Your task to perform on an android device: check out phone information Image 0: 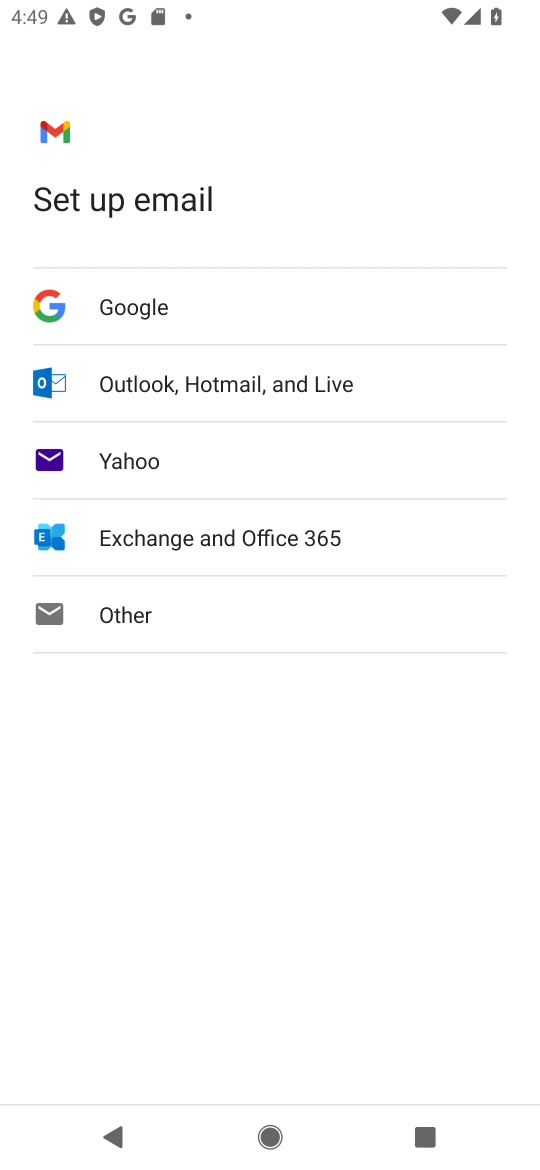
Step 0: press home button
Your task to perform on an android device: check out phone information Image 1: 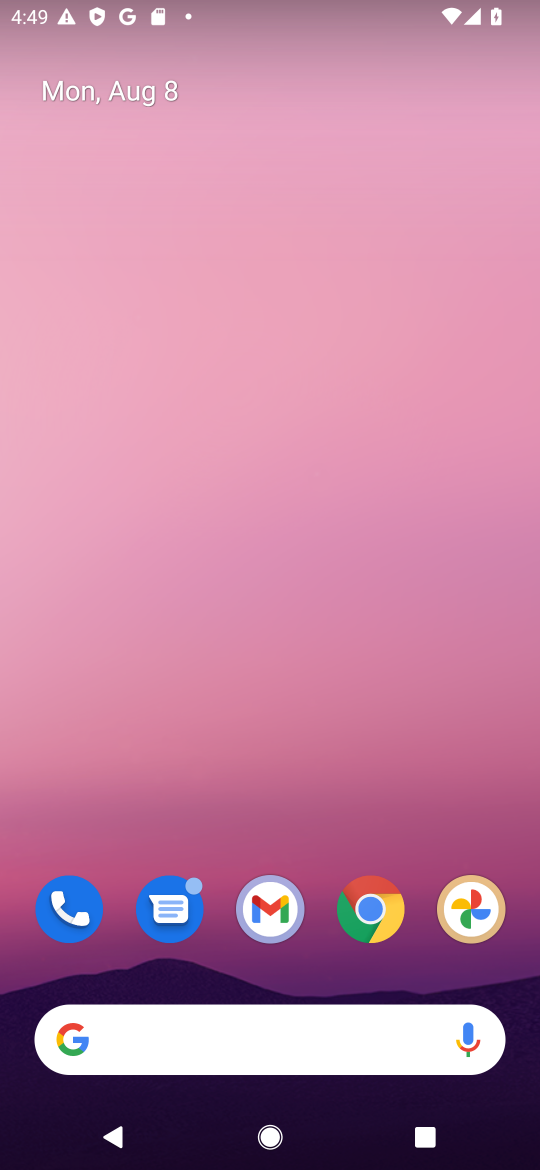
Step 1: drag from (292, 1046) to (323, 197)
Your task to perform on an android device: check out phone information Image 2: 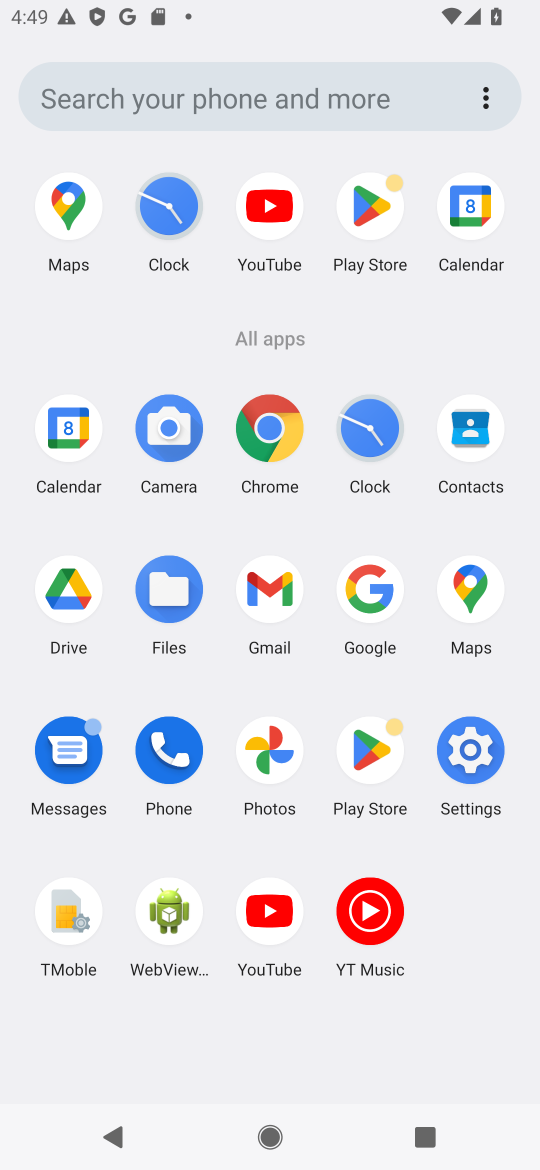
Step 2: click (472, 752)
Your task to perform on an android device: check out phone information Image 3: 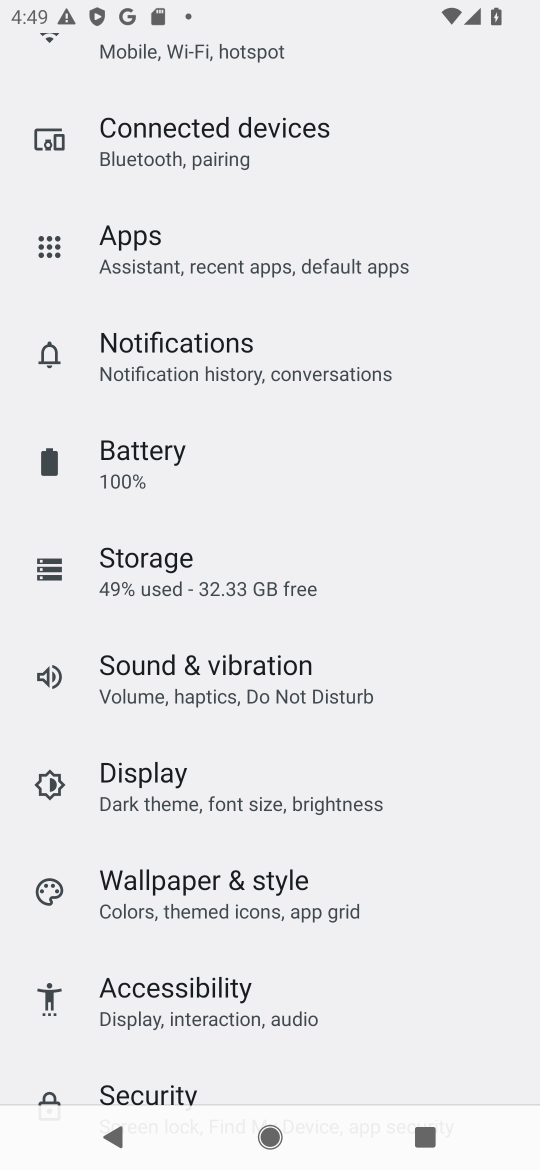
Step 3: drag from (350, 988) to (425, 172)
Your task to perform on an android device: check out phone information Image 4: 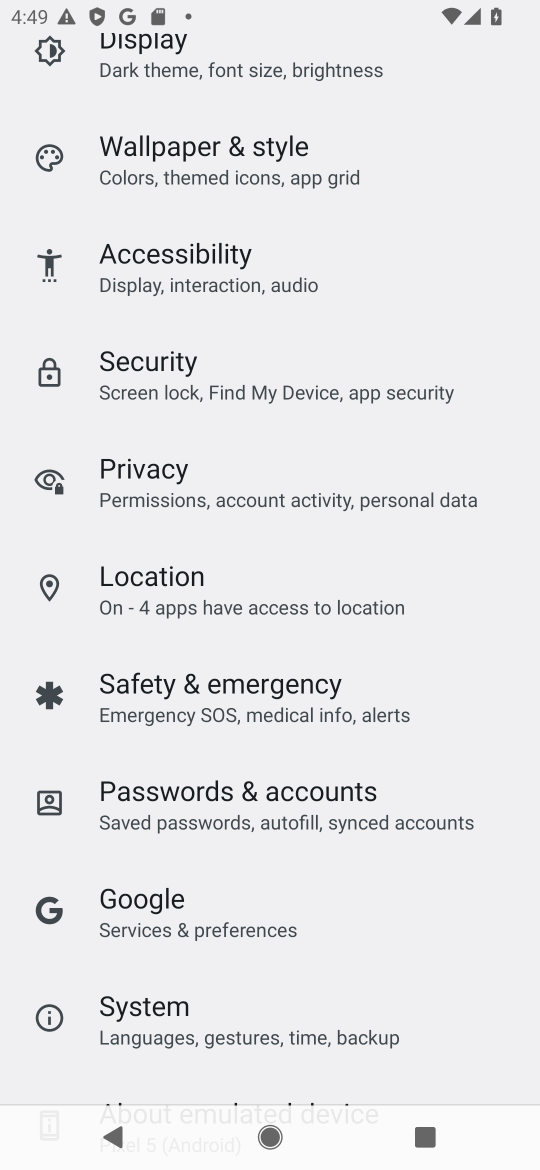
Step 4: drag from (394, 980) to (456, 85)
Your task to perform on an android device: check out phone information Image 5: 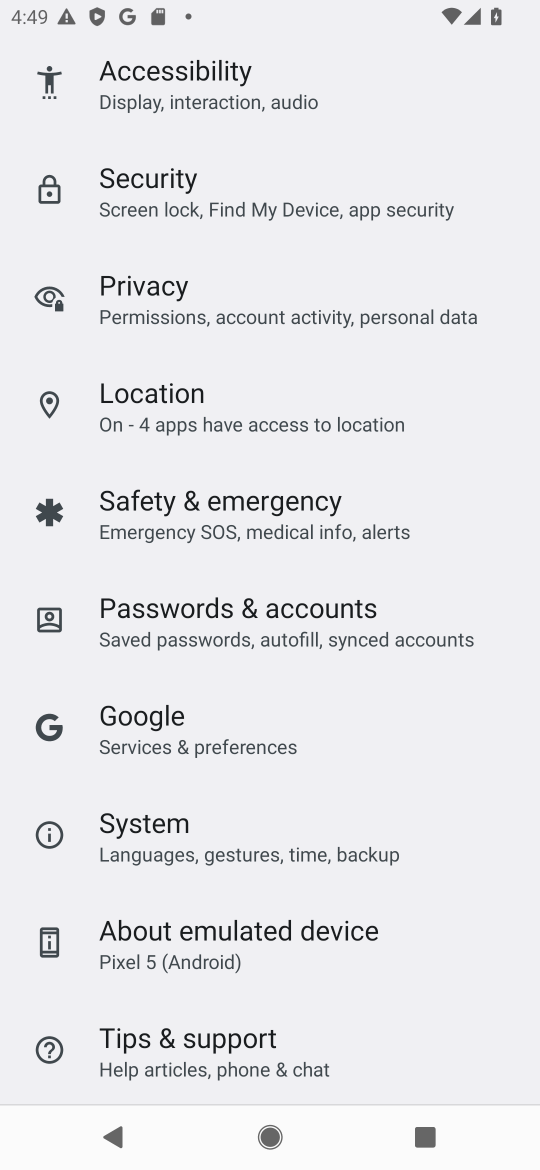
Step 5: click (299, 928)
Your task to perform on an android device: check out phone information Image 6: 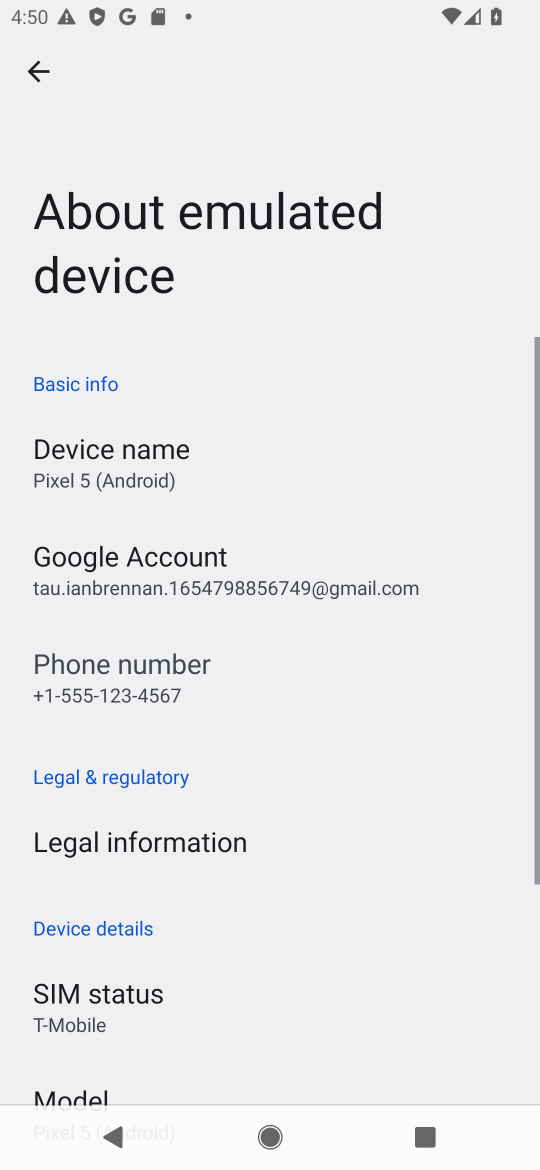
Step 6: task complete